Your task to perform on an android device: Open Google Maps Image 0: 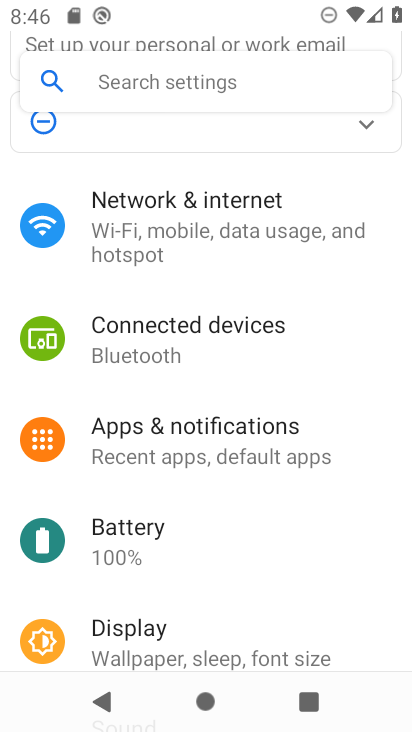
Step 0: press home button
Your task to perform on an android device: Open Google Maps Image 1: 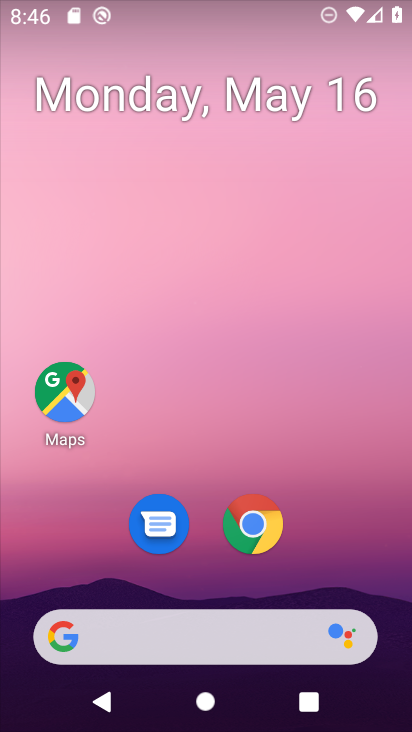
Step 1: click (63, 392)
Your task to perform on an android device: Open Google Maps Image 2: 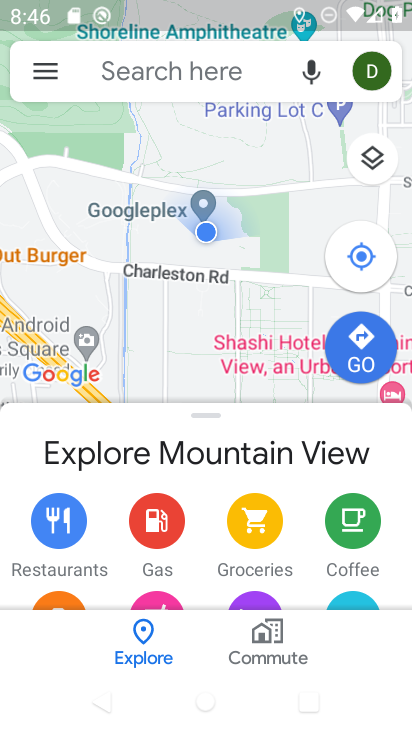
Step 2: task complete